Your task to perform on an android device: Is it going to rain this weekend? Image 0: 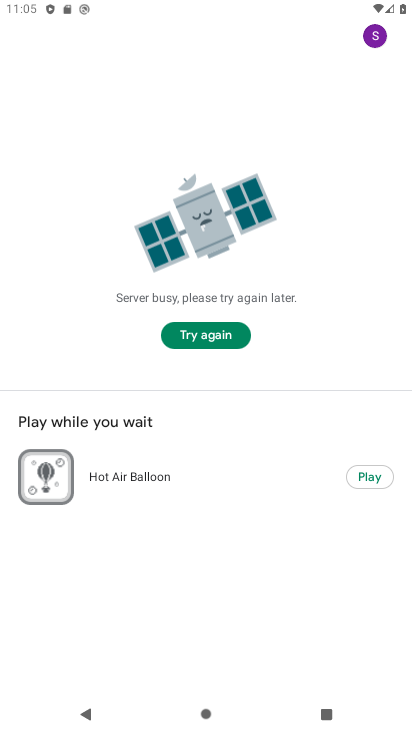
Step 0: press home button
Your task to perform on an android device: Is it going to rain this weekend? Image 1: 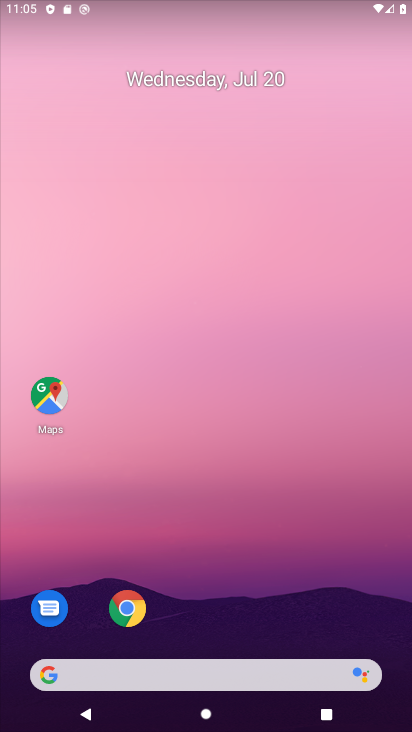
Step 1: click (247, 677)
Your task to perform on an android device: Is it going to rain this weekend? Image 2: 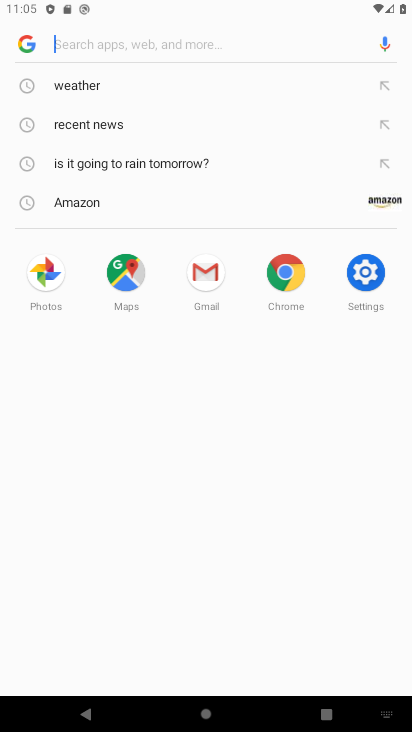
Step 2: click (96, 84)
Your task to perform on an android device: Is it going to rain this weekend? Image 3: 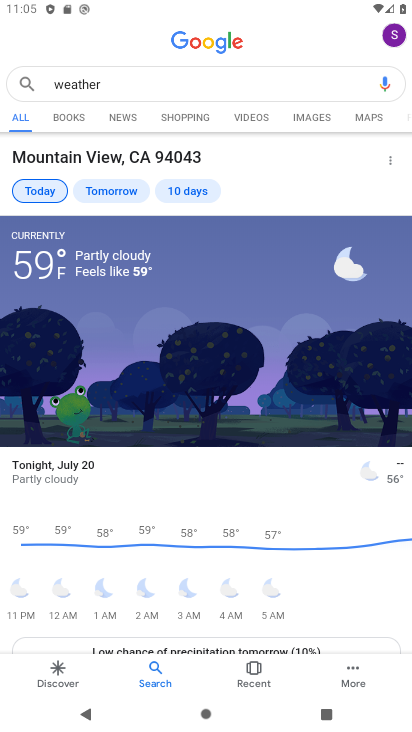
Step 3: click (188, 188)
Your task to perform on an android device: Is it going to rain this weekend? Image 4: 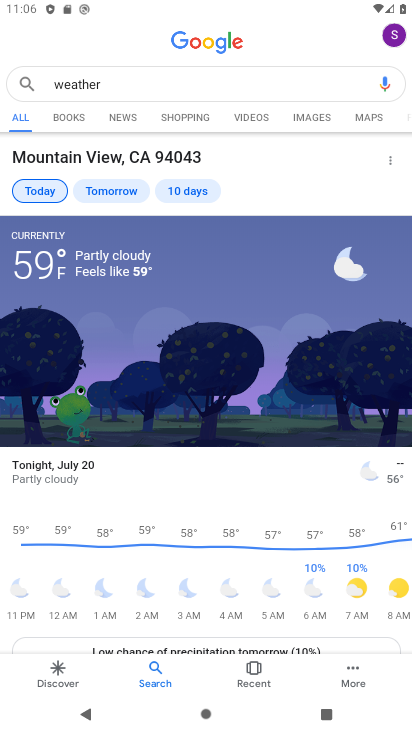
Step 4: click (199, 184)
Your task to perform on an android device: Is it going to rain this weekend? Image 5: 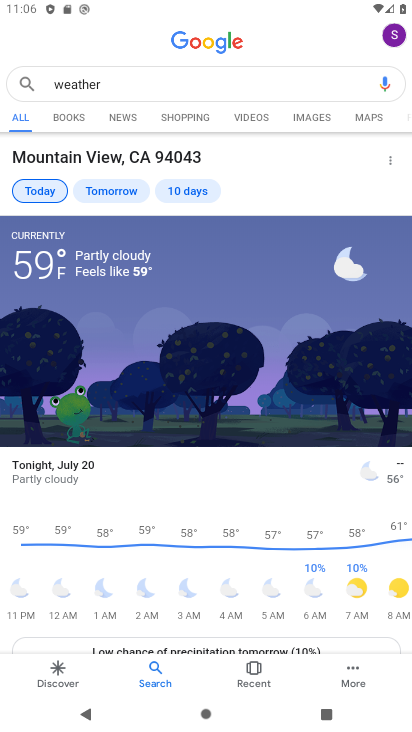
Step 5: task complete